Your task to perform on an android device: Go to Maps Image 0: 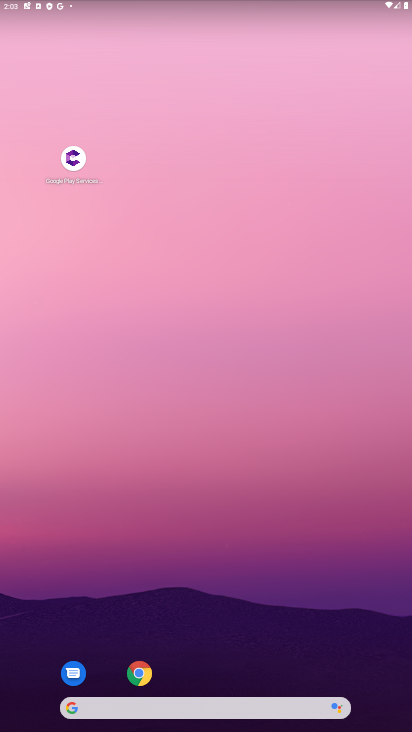
Step 0: drag from (25, 491) to (383, 488)
Your task to perform on an android device: Go to Maps Image 1: 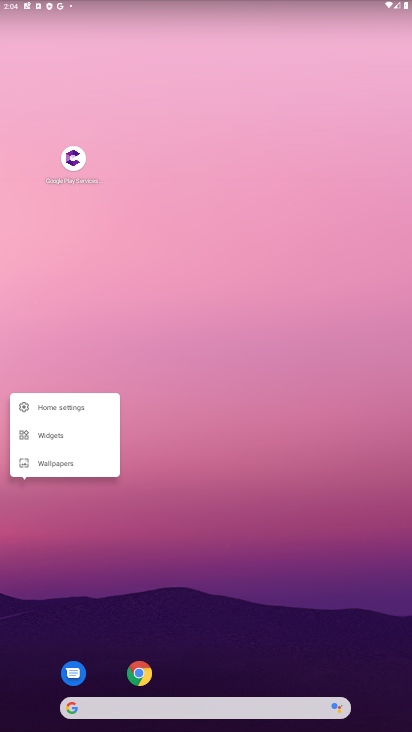
Step 1: drag from (17, 554) to (360, 525)
Your task to perform on an android device: Go to Maps Image 2: 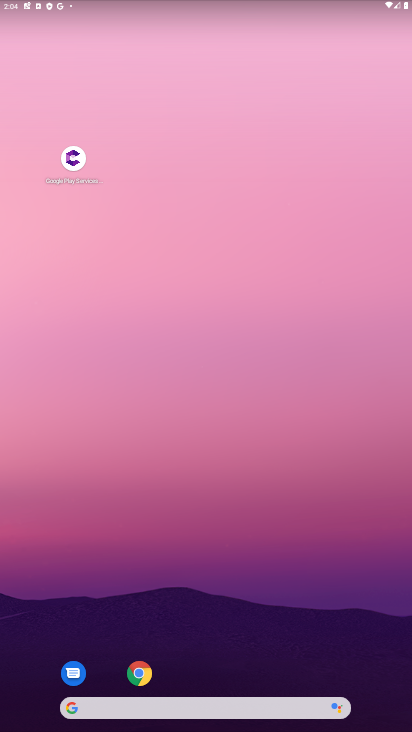
Step 2: drag from (26, 493) to (389, 528)
Your task to perform on an android device: Go to Maps Image 3: 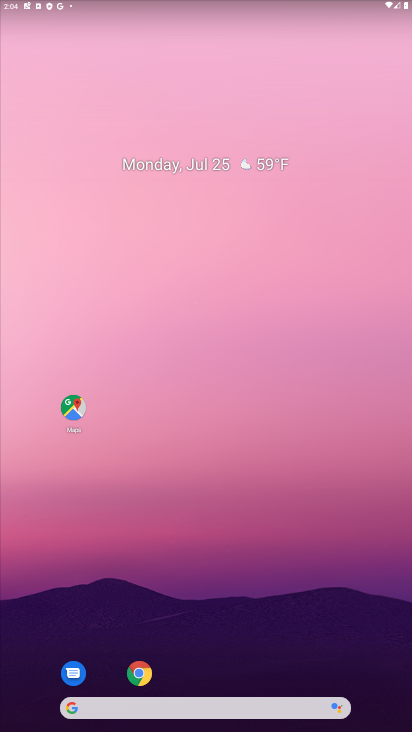
Step 3: click (78, 414)
Your task to perform on an android device: Go to Maps Image 4: 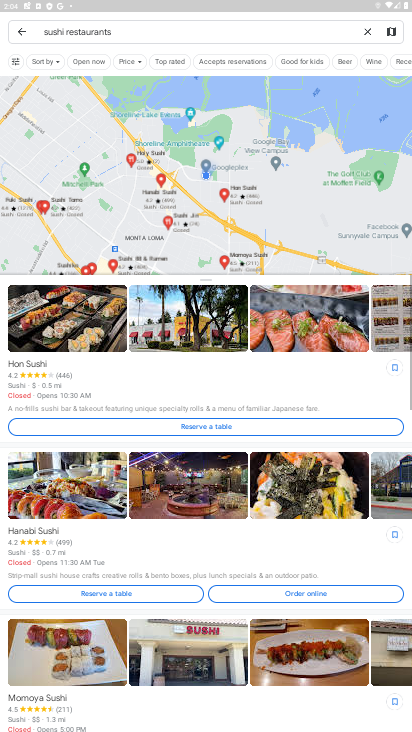
Step 4: task complete